Your task to perform on an android device: Open Chrome and go to the settings page Image 0: 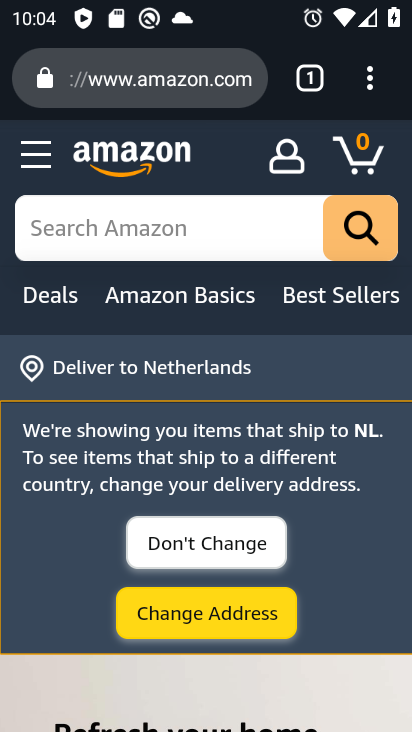
Step 0: press home button
Your task to perform on an android device: Open Chrome and go to the settings page Image 1: 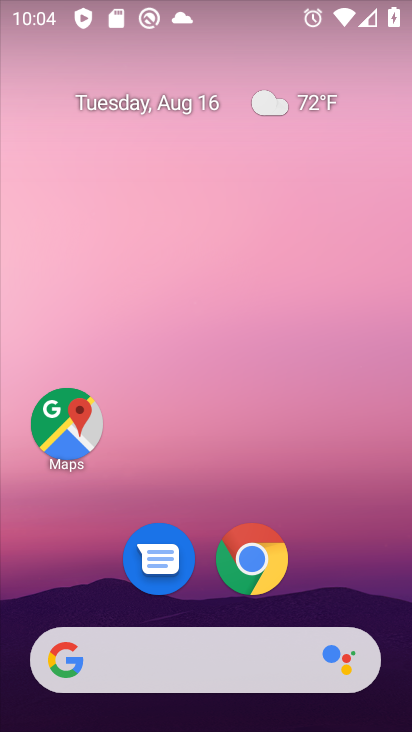
Step 1: click (255, 562)
Your task to perform on an android device: Open Chrome and go to the settings page Image 2: 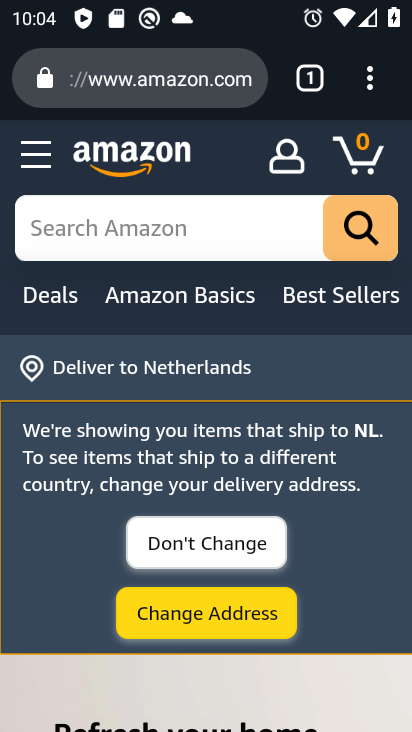
Step 2: click (381, 81)
Your task to perform on an android device: Open Chrome and go to the settings page Image 3: 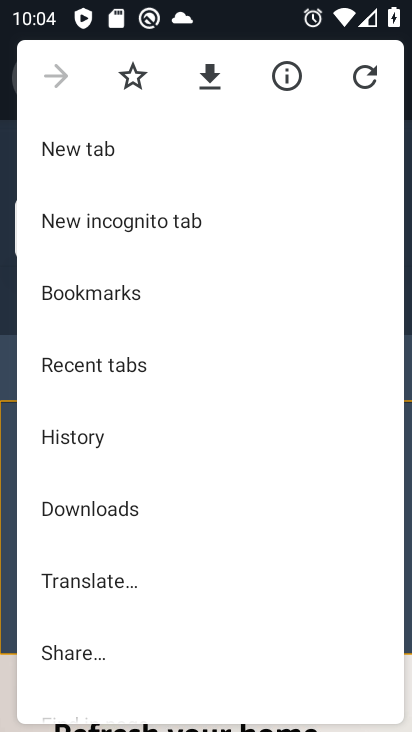
Step 3: drag from (121, 601) to (189, 498)
Your task to perform on an android device: Open Chrome and go to the settings page Image 4: 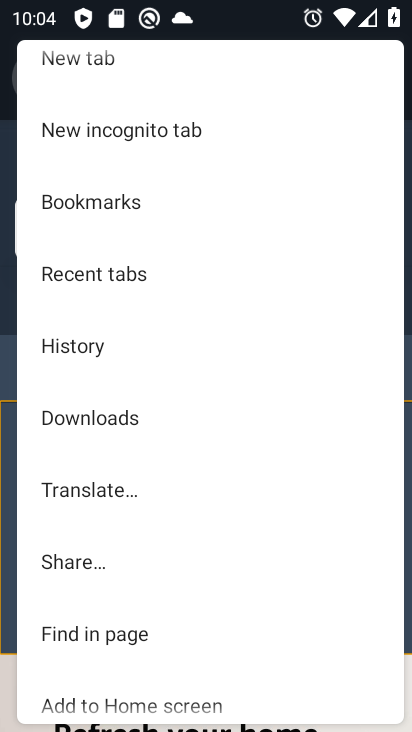
Step 4: drag from (149, 578) to (212, 483)
Your task to perform on an android device: Open Chrome and go to the settings page Image 5: 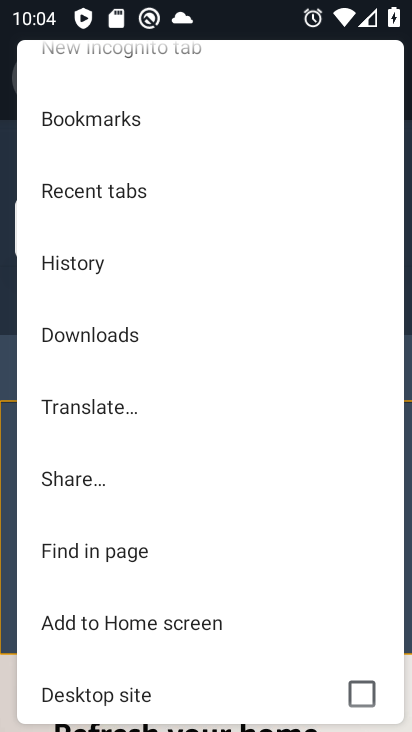
Step 5: drag from (141, 584) to (239, 467)
Your task to perform on an android device: Open Chrome and go to the settings page Image 6: 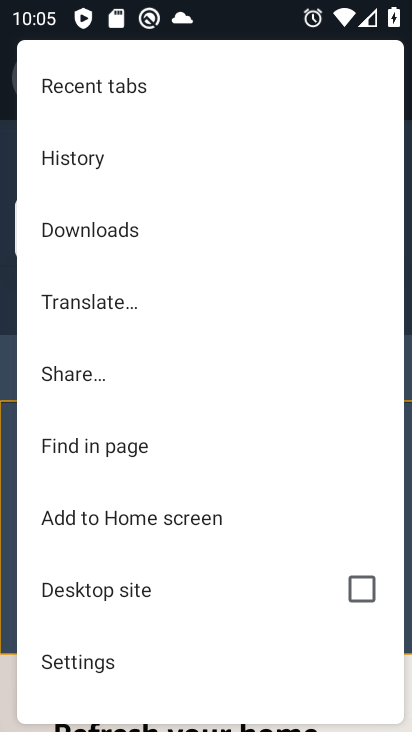
Step 6: drag from (164, 617) to (239, 515)
Your task to perform on an android device: Open Chrome and go to the settings page Image 7: 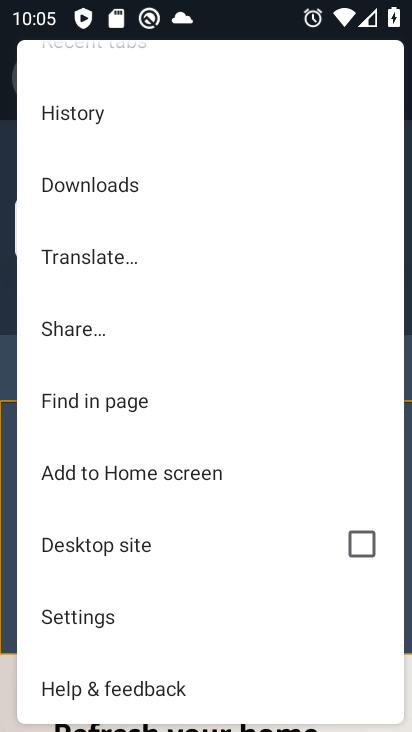
Step 7: click (68, 617)
Your task to perform on an android device: Open Chrome and go to the settings page Image 8: 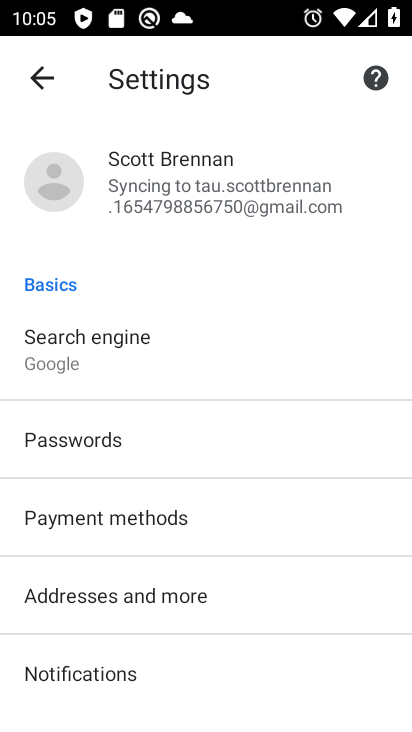
Step 8: task complete